Your task to perform on an android device: Turn off the flashlight Image 0: 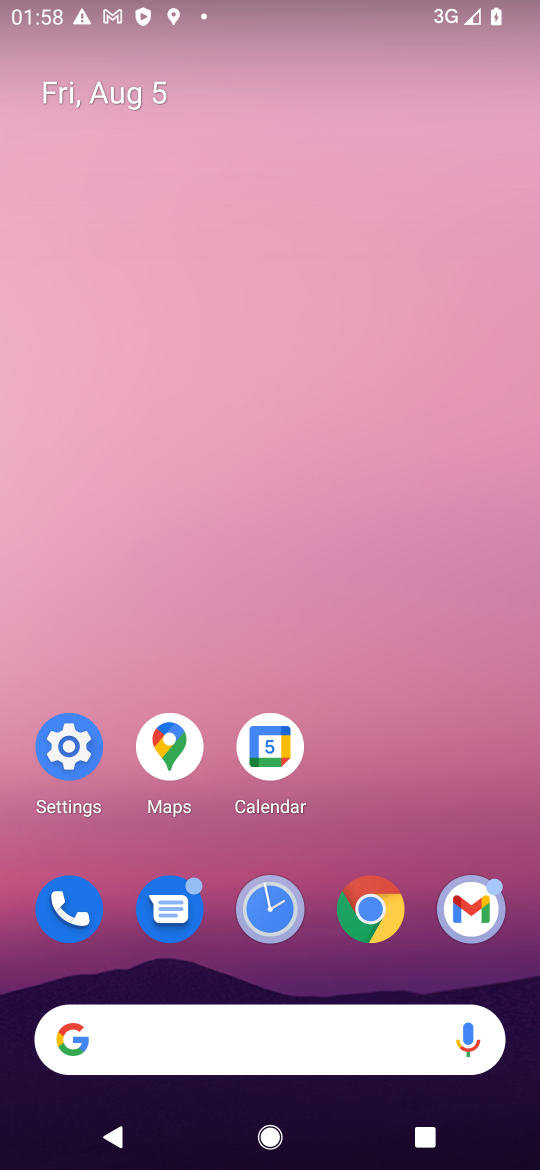
Step 0: click (73, 742)
Your task to perform on an android device: Turn off the flashlight Image 1: 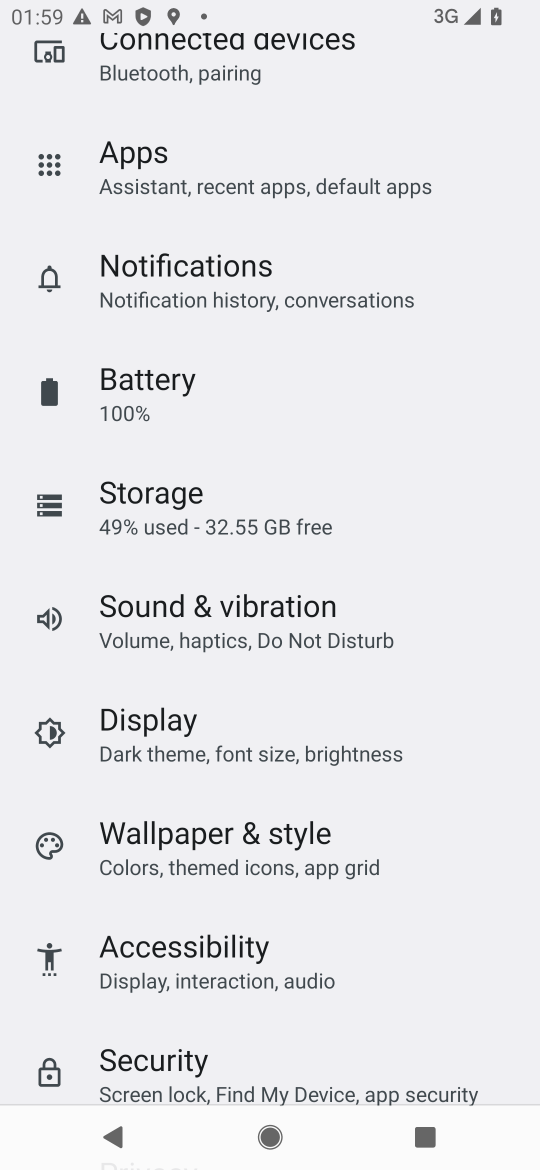
Step 1: click (155, 721)
Your task to perform on an android device: Turn off the flashlight Image 2: 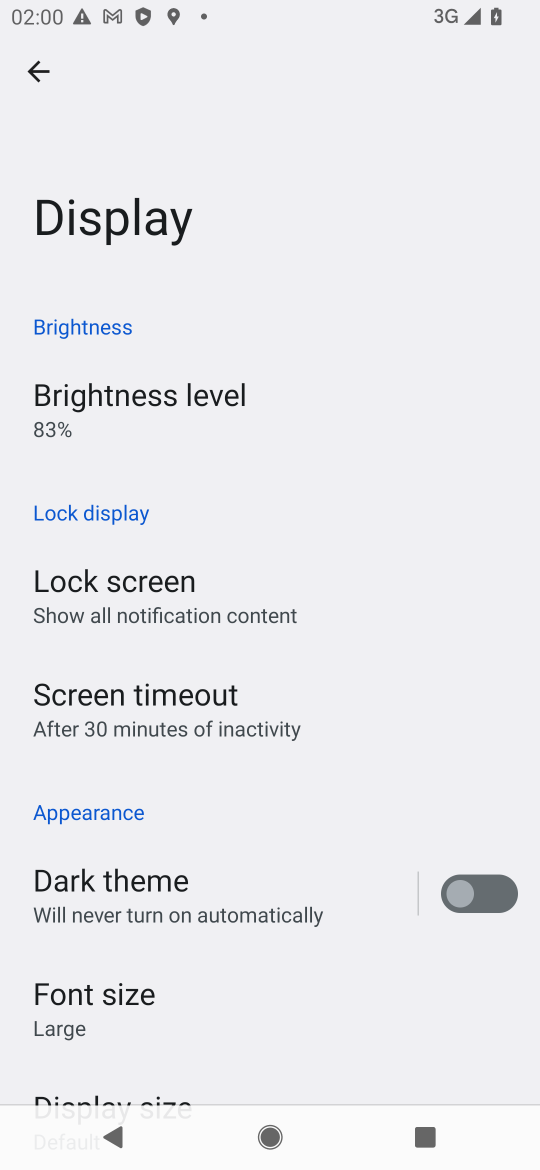
Step 2: task complete